Your task to perform on an android device: turn on the 12-hour format for clock Image 0: 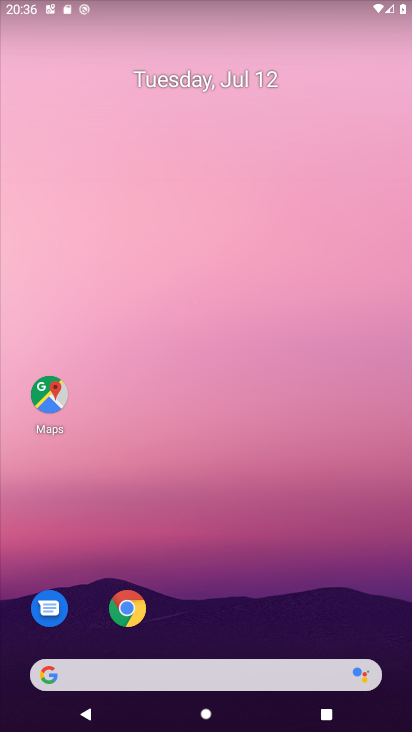
Step 0: drag from (216, 664) to (325, 148)
Your task to perform on an android device: turn on the 12-hour format for clock Image 1: 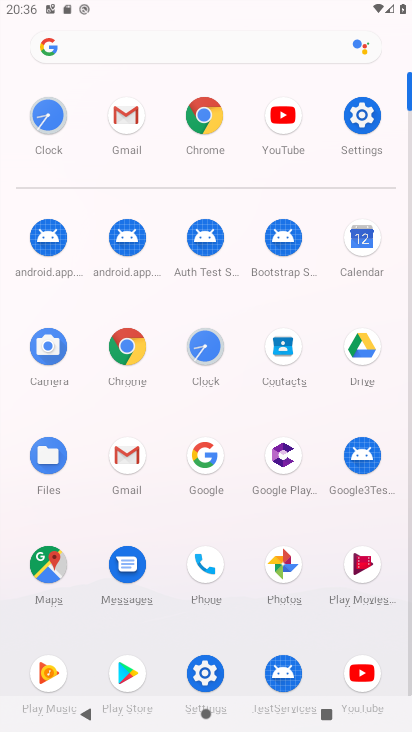
Step 1: click (201, 347)
Your task to perform on an android device: turn on the 12-hour format for clock Image 2: 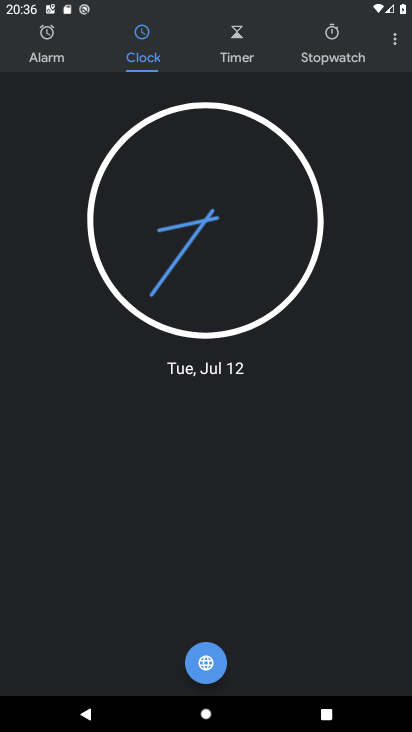
Step 2: click (390, 46)
Your task to perform on an android device: turn on the 12-hour format for clock Image 3: 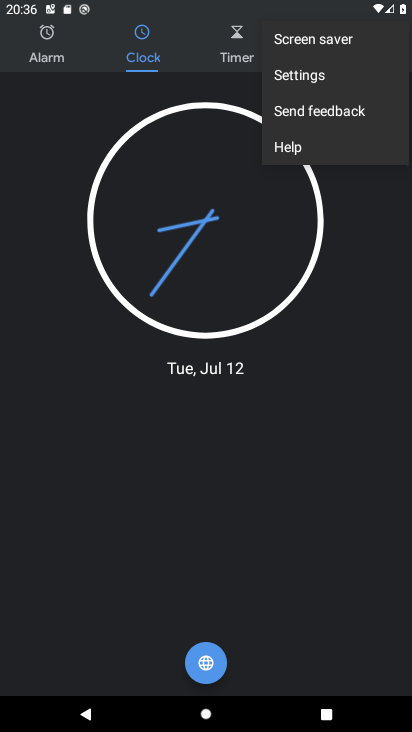
Step 3: click (322, 78)
Your task to perform on an android device: turn on the 12-hour format for clock Image 4: 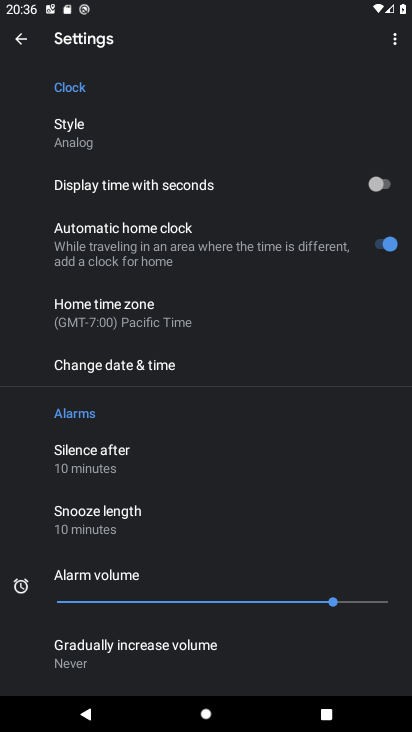
Step 4: click (118, 367)
Your task to perform on an android device: turn on the 12-hour format for clock Image 5: 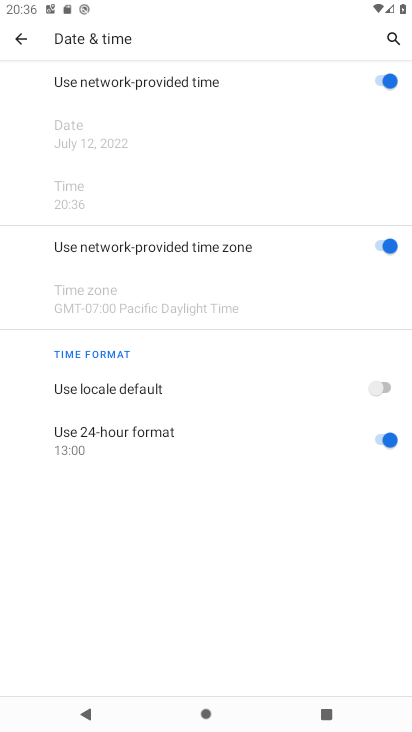
Step 5: click (384, 385)
Your task to perform on an android device: turn on the 12-hour format for clock Image 6: 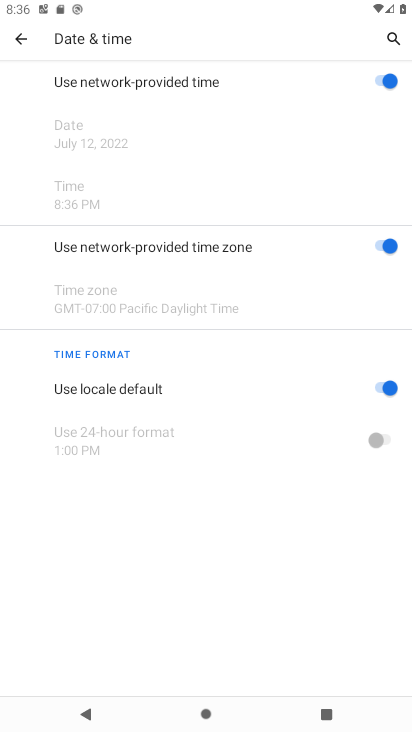
Step 6: task complete